Your task to perform on an android device: Open Google Chrome and click the shortcut for Amazon.com Image 0: 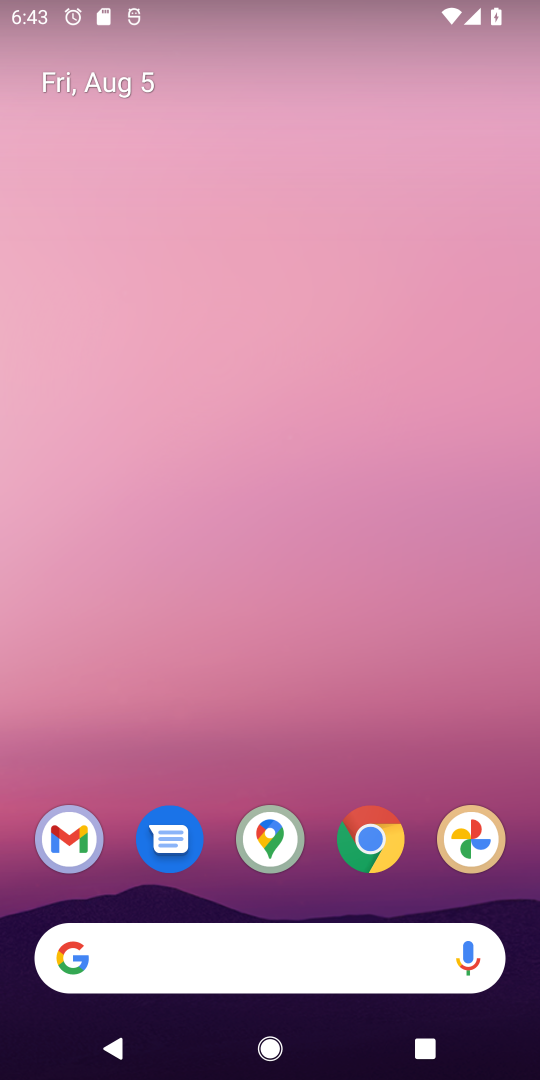
Step 0: click (360, 815)
Your task to perform on an android device: Open Google Chrome and click the shortcut for Amazon.com Image 1: 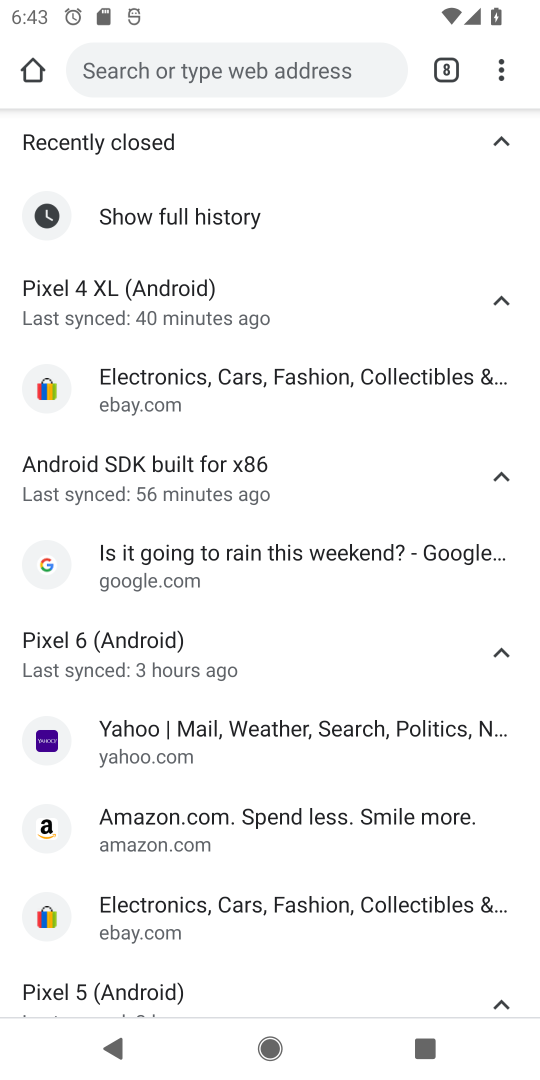
Step 1: click (455, 65)
Your task to perform on an android device: Open Google Chrome and click the shortcut for Amazon.com Image 2: 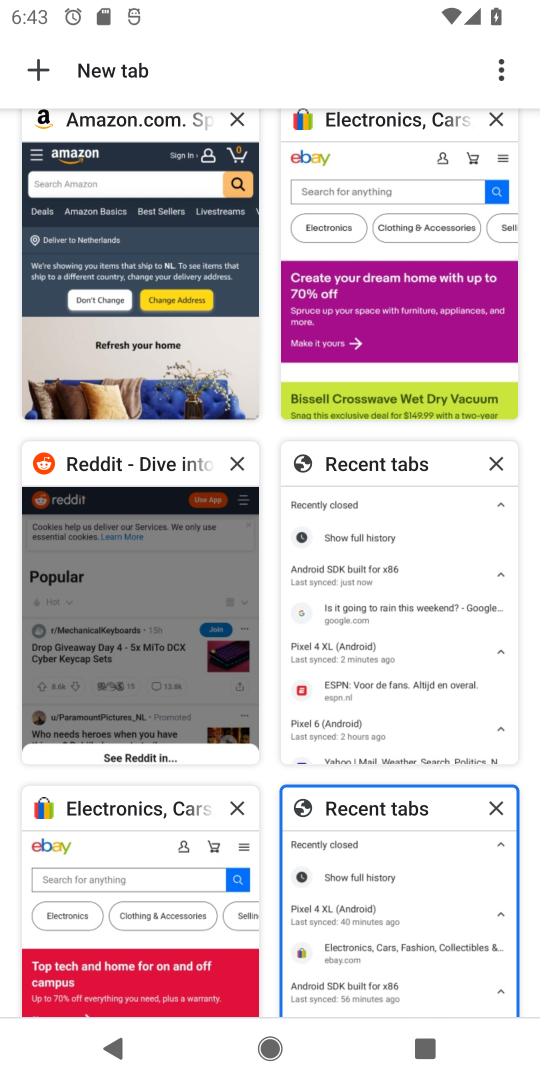
Step 2: click (143, 293)
Your task to perform on an android device: Open Google Chrome and click the shortcut for Amazon.com Image 3: 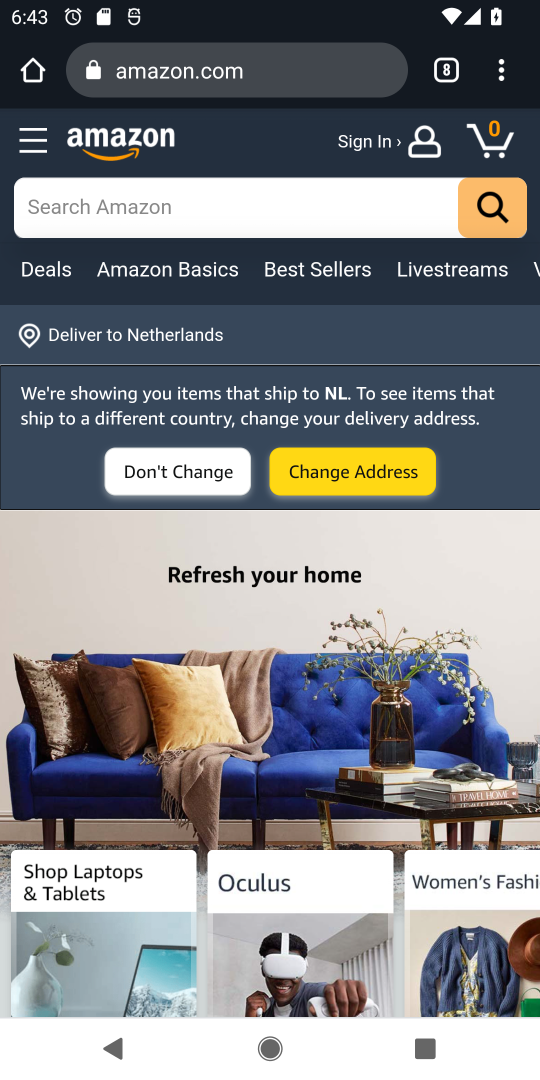
Step 3: task complete